Your task to perform on an android device: Open accessibility settings Image 0: 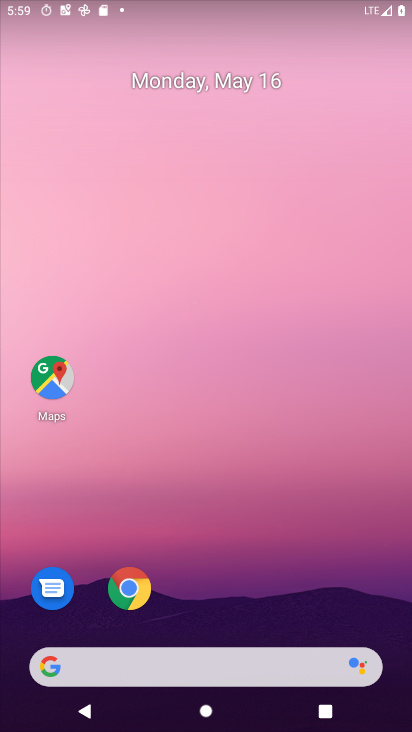
Step 0: drag from (246, 344) to (178, 24)
Your task to perform on an android device: Open accessibility settings Image 1: 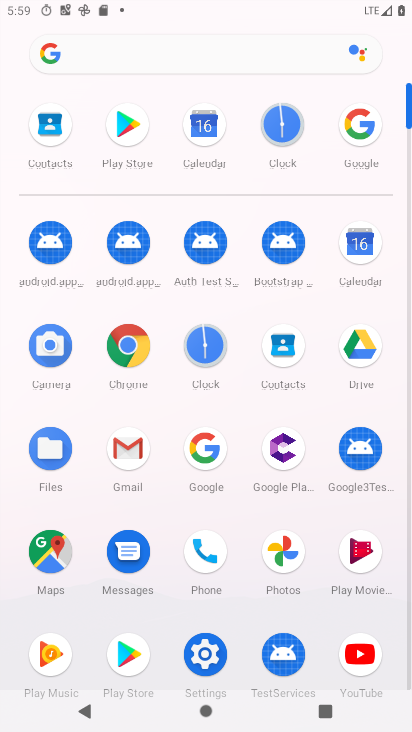
Step 1: click (191, 644)
Your task to perform on an android device: Open accessibility settings Image 2: 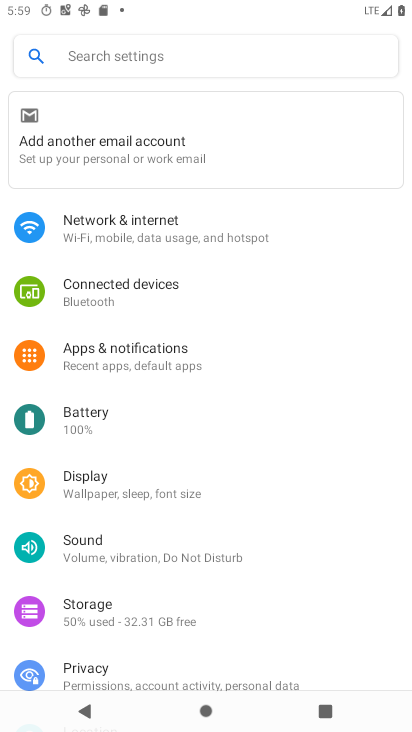
Step 2: drag from (228, 595) to (197, 101)
Your task to perform on an android device: Open accessibility settings Image 3: 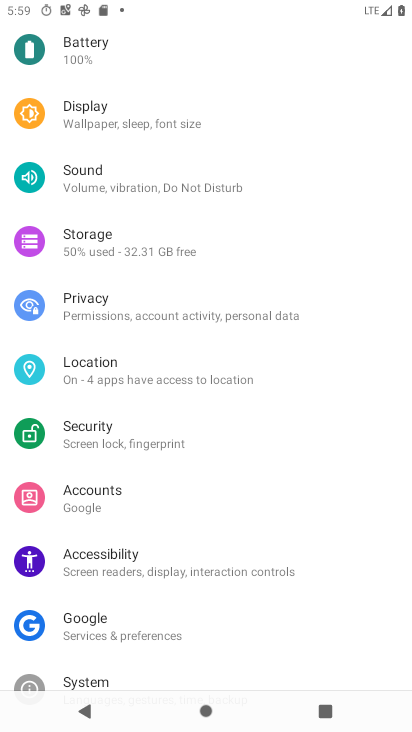
Step 3: click (183, 563)
Your task to perform on an android device: Open accessibility settings Image 4: 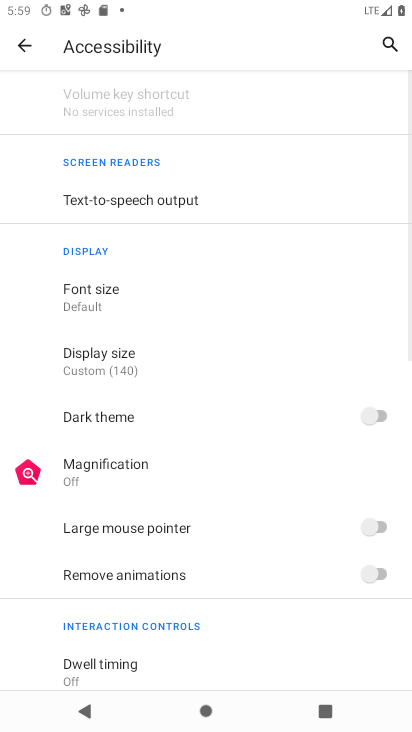
Step 4: task complete